Your task to perform on an android device: Go to display settings Image 0: 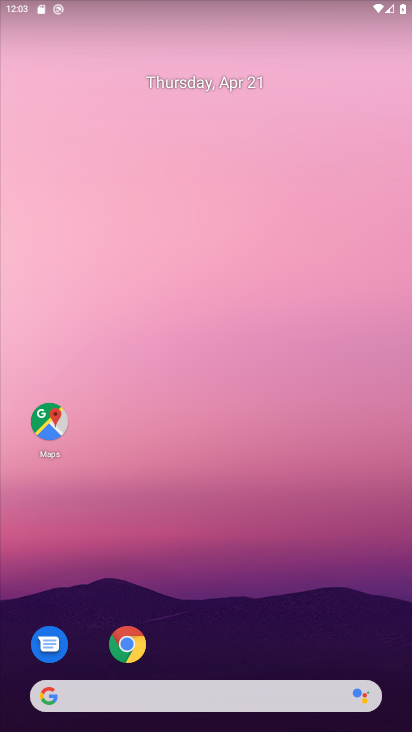
Step 0: drag from (284, 370) to (297, 87)
Your task to perform on an android device: Go to display settings Image 1: 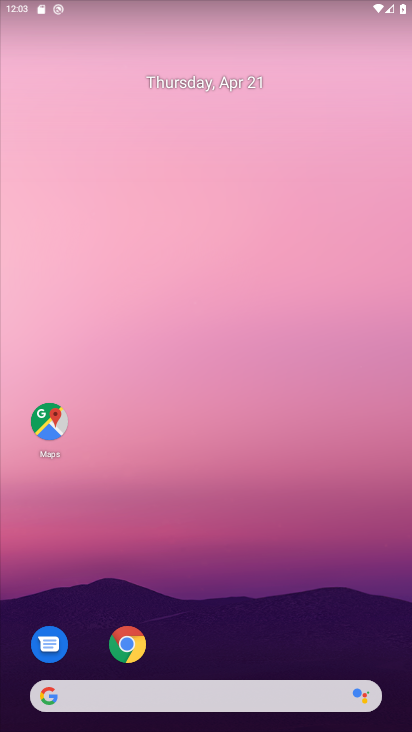
Step 1: drag from (242, 542) to (302, 4)
Your task to perform on an android device: Go to display settings Image 2: 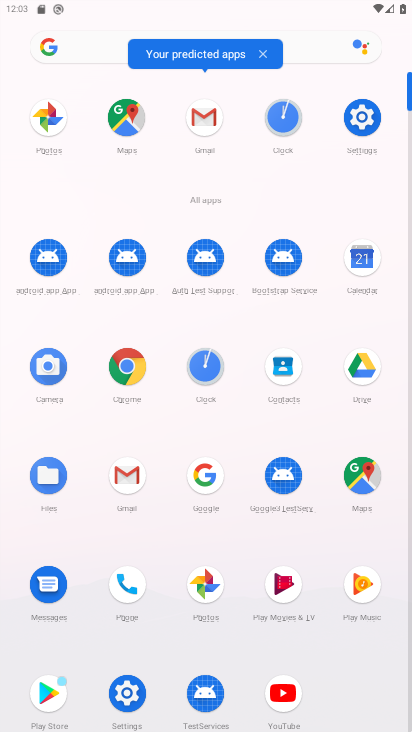
Step 2: click (364, 109)
Your task to perform on an android device: Go to display settings Image 3: 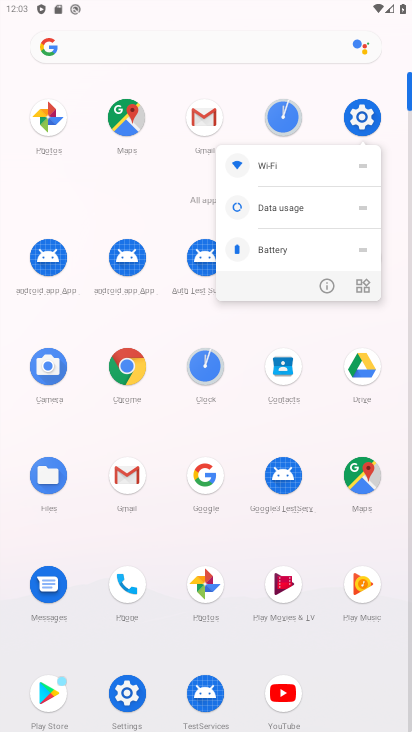
Step 3: click (363, 113)
Your task to perform on an android device: Go to display settings Image 4: 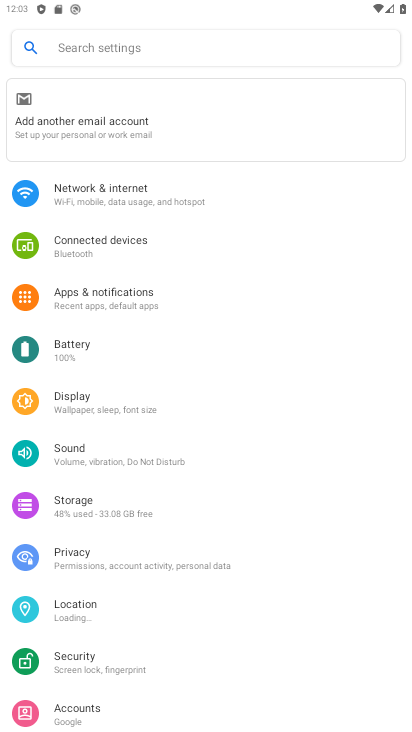
Step 4: click (96, 399)
Your task to perform on an android device: Go to display settings Image 5: 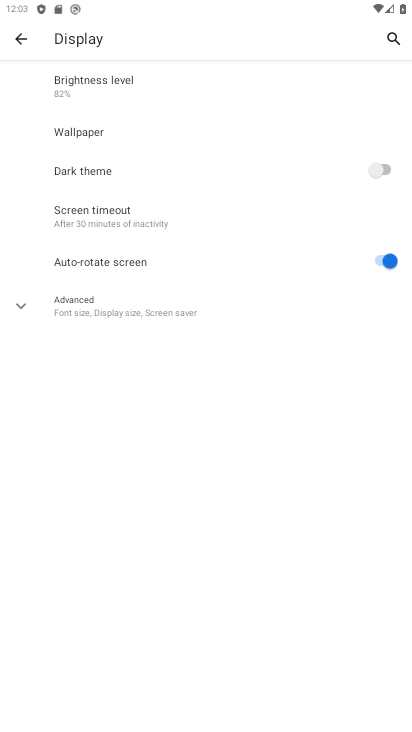
Step 5: task complete